Your task to perform on an android device: Is it going to rain this weekend? Image 0: 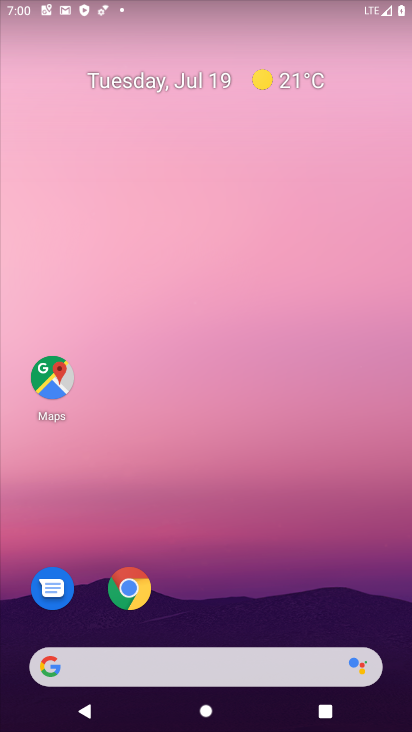
Step 0: drag from (247, 555) to (208, 139)
Your task to perform on an android device: Is it going to rain this weekend? Image 1: 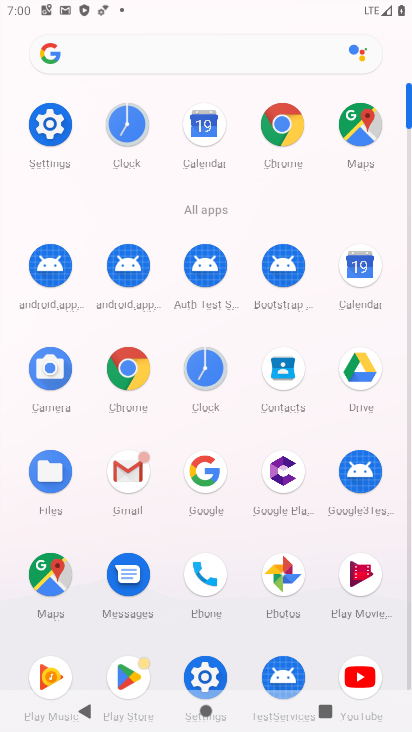
Step 1: click (128, 389)
Your task to perform on an android device: Is it going to rain this weekend? Image 2: 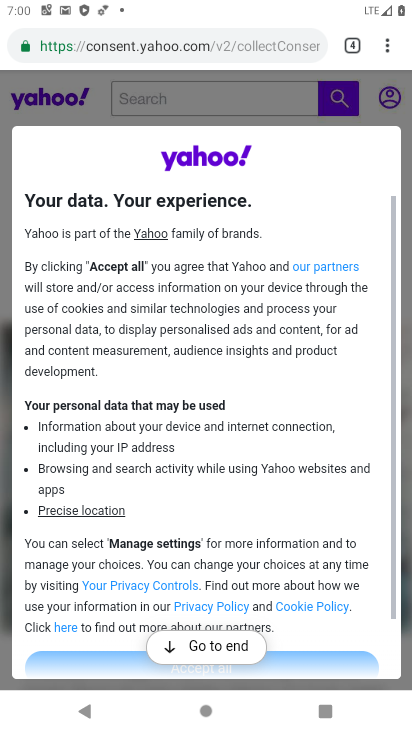
Step 2: click (349, 55)
Your task to perform on an android device: Is it going to rain this weekend? Image 3: 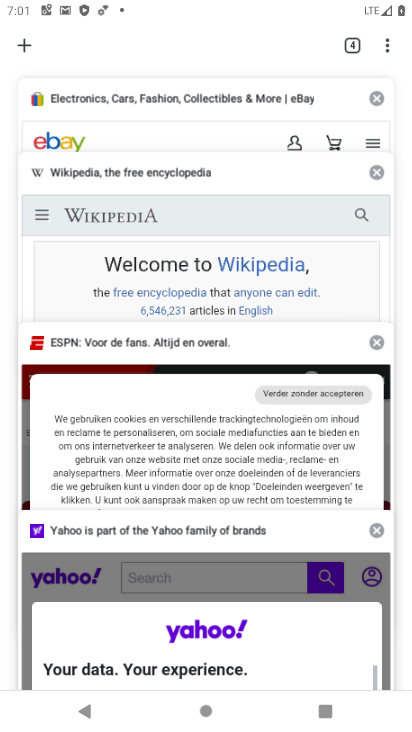
Step 3: click (22, 58)
Your task to perform on an android device: Is it going to rain this weekend? Image 4: 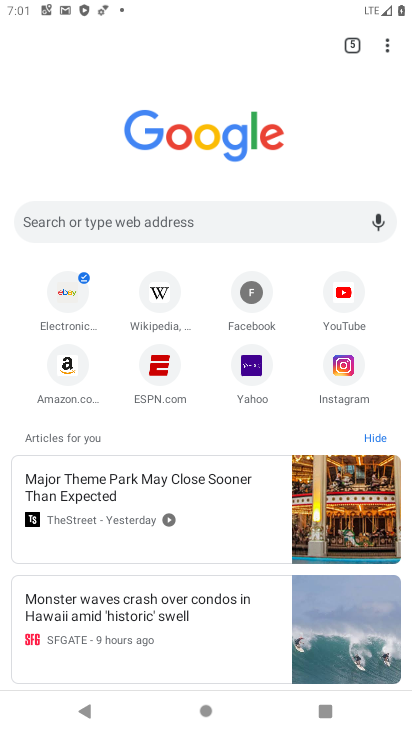
Step 4: click (154, 227)
Your task to perform on an android device: Is it going to rain this weekend? Image 5: 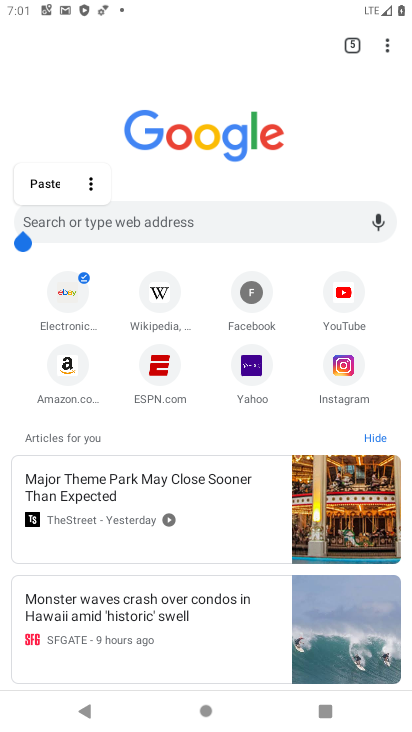
Step 5: click (148, 226)
Your task to perform on an android device: Is it going to rain this weekend? Image 6: 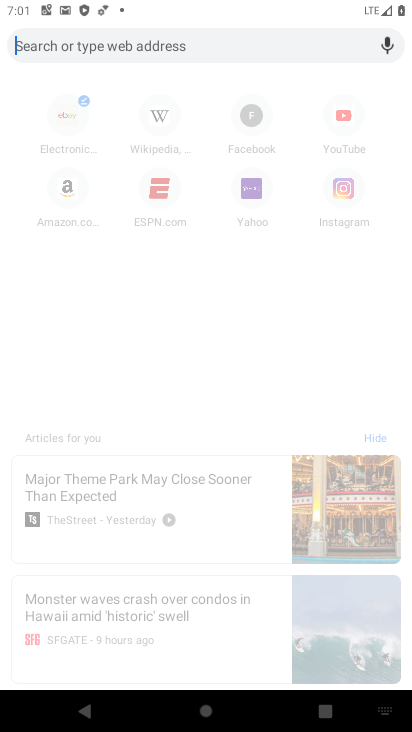
Step 6: type "weather"
Your task to perform on an android device: Is it going to rain this weekend? Image 7: 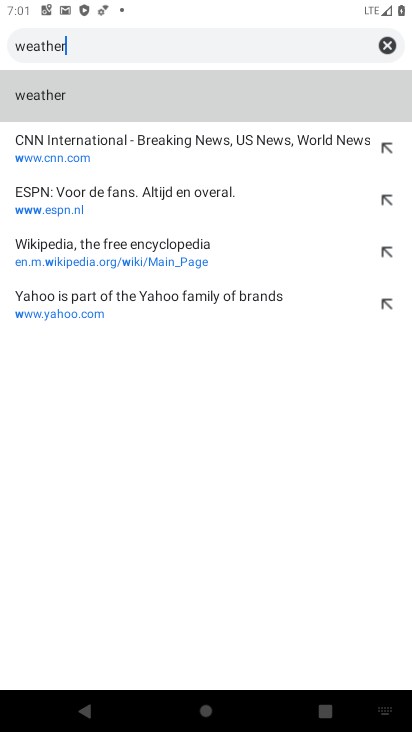
Step 7: type ""
Your task to perform on an android device: Is it going to rain this weekend? Image 8: 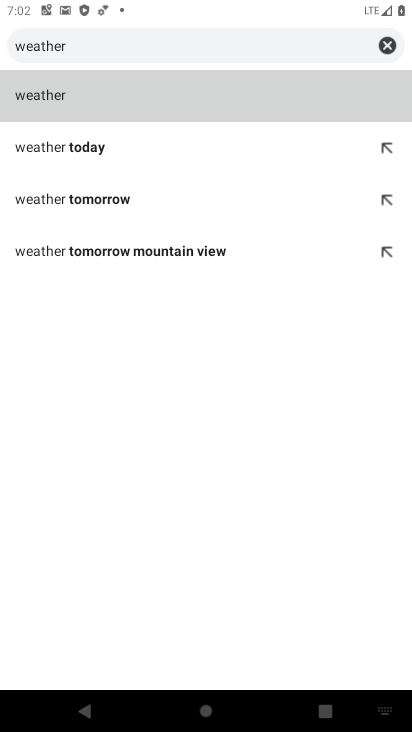
Step 8: click (99, 105)
Your task to perform on an android device: Is it going to rain this weekend? Image 9: 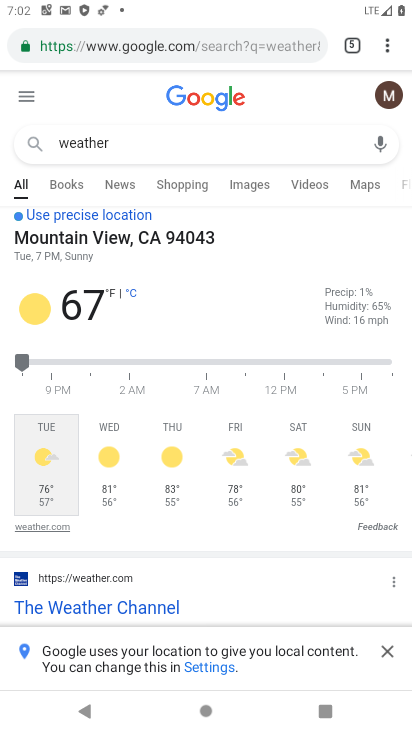
Step 9: task complete